Your task to perform on an android device: Turn on the flashlight Image 0: 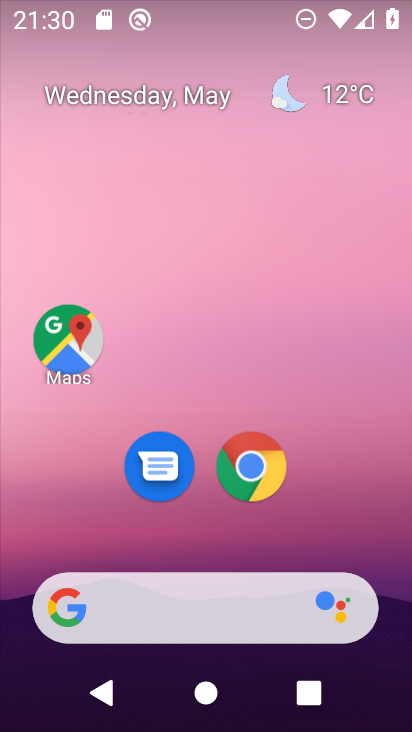
Step 0: press home button
Your task to perform on an android device: Turn on the flashlight Image 1: 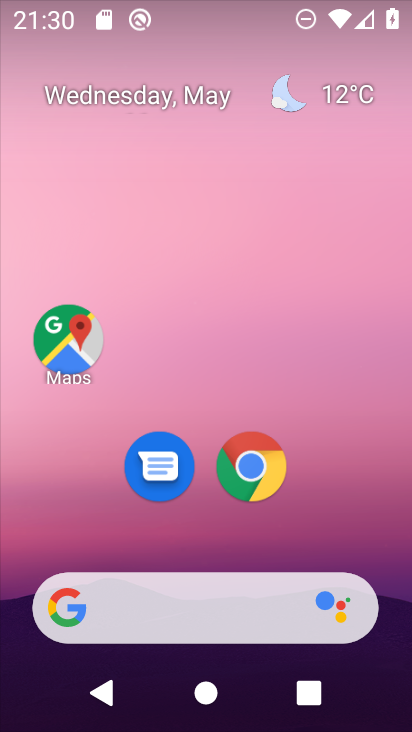
Step 1: drag from (218, 9) to (228, 626)
Your task to perform on an android device: Turn on the flashlight Image 2: 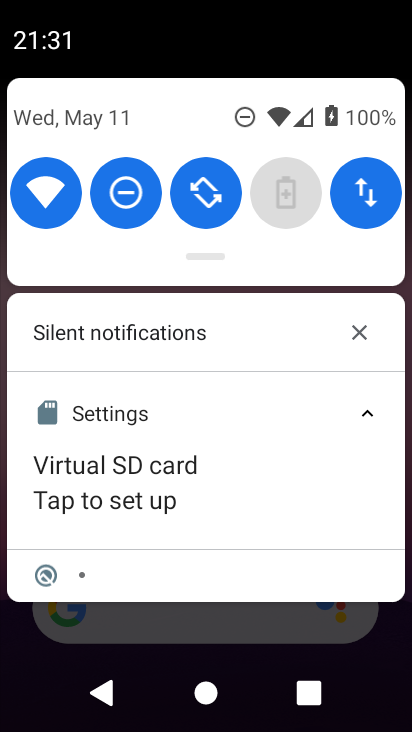
Step 2: click (225, 646)
Your task to perform on an android device: Turn on the flashlight Image 3: 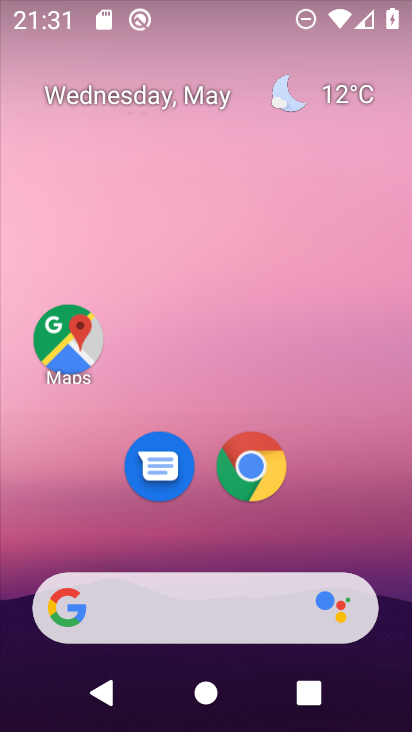
Step 3: drag from (197, 548) to (203, 52)
Your task to perform on an android device: Turn on the flashlight Image 4: 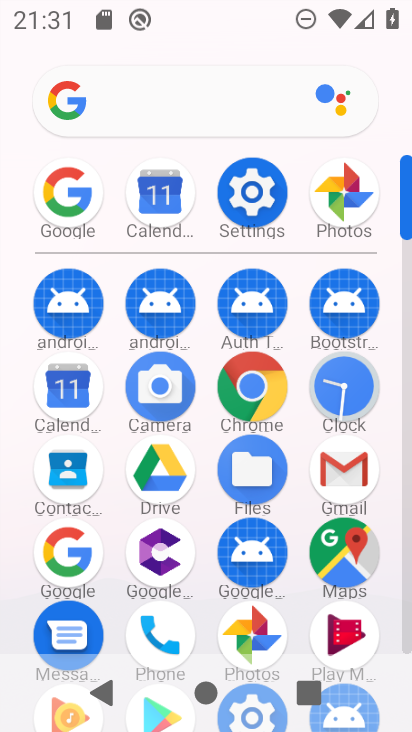
Step 4: click (252, 184)
Your task to perform on an android device: Turn on the flashlight Image 5: 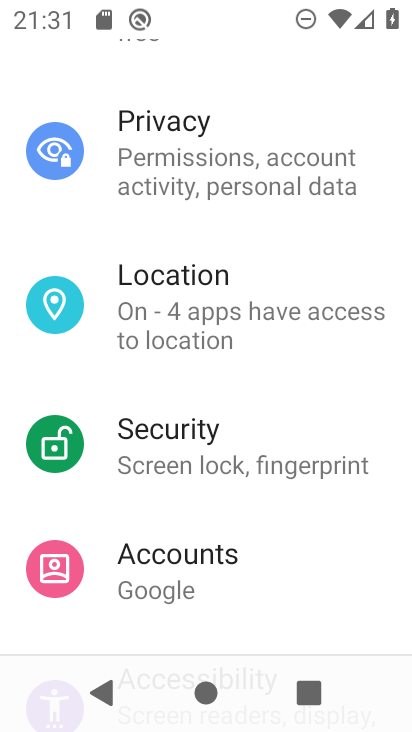
Step 5: drag from (156, 144) to (202, 645)
Your task to perform on an android device: Turn on the flashlight Image 6: 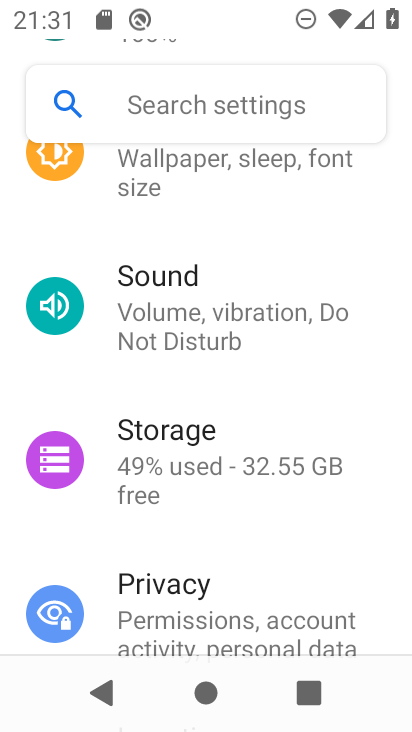
Step 6: click (147, 96)
Your task to perform on an android device: Turn on the flashlight Image 7: 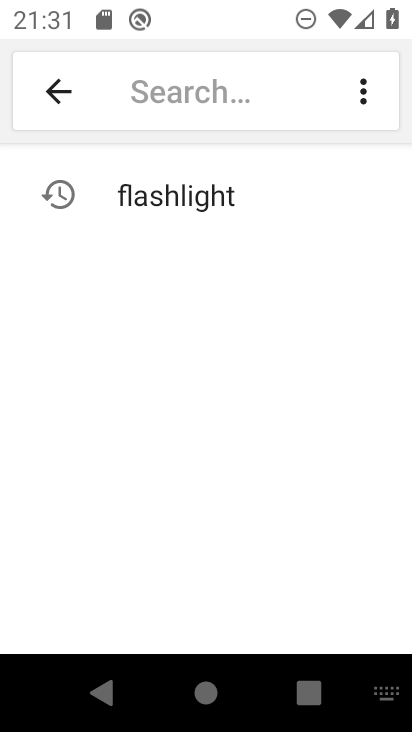
Step 7: click (200, 196)
Your task to perform on an android device: Turn on the flashlight Image 8: 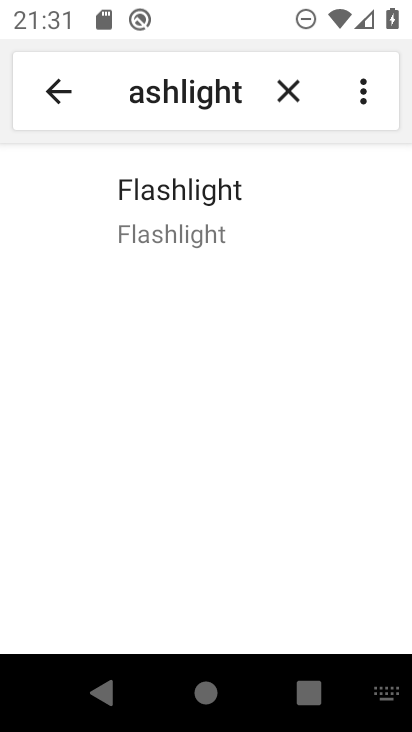
Step 8: click (185, 211)
Your task to perform on an android device: Turn on the flashlight Image 9: 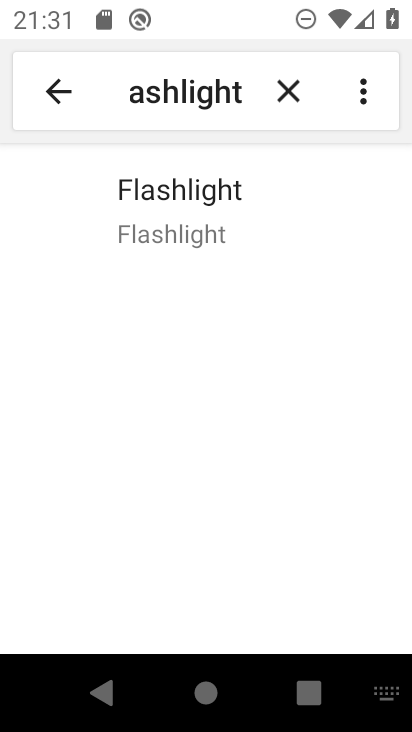
Step 9: task complete